Your task to perform on an android device: turn off sleep mode Image 0: 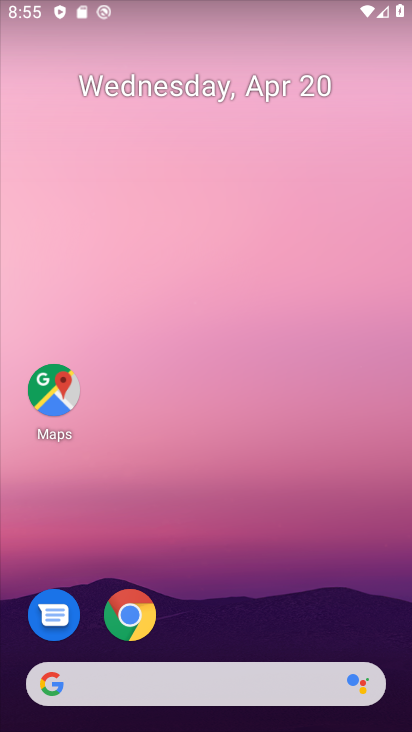
Step 0: drag from (297, 626) to (329, 106)
Your task to perform on an android device: turn off sleep mode Image 1: 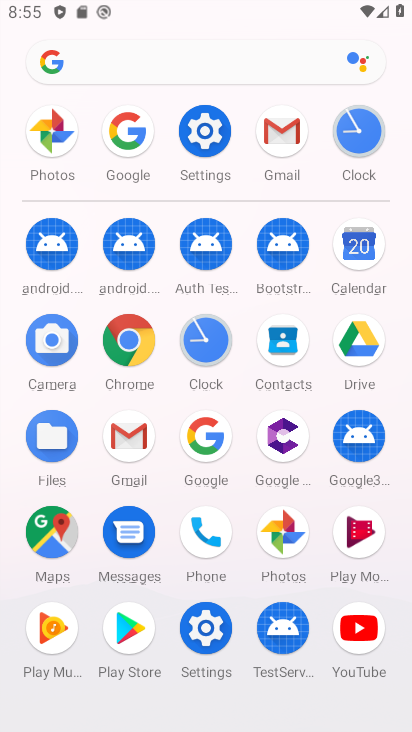
Step 1: click (204, 132)
Your task to perform on an android device: turn off sleep mode Image 2: 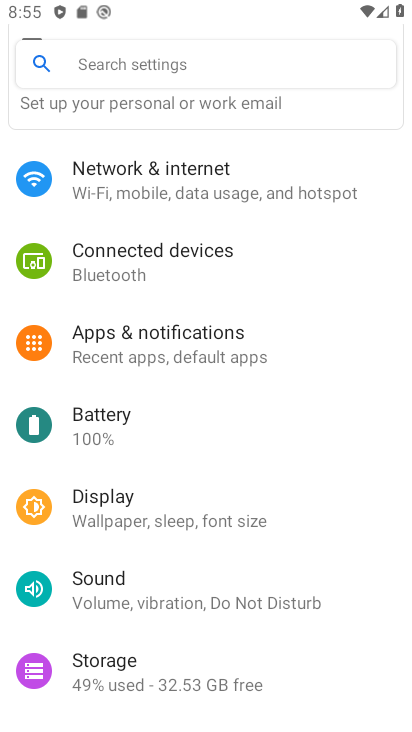
Step 2: click (213, 341)
Your task to perform on an android device: turn off sleep mode Image 3: 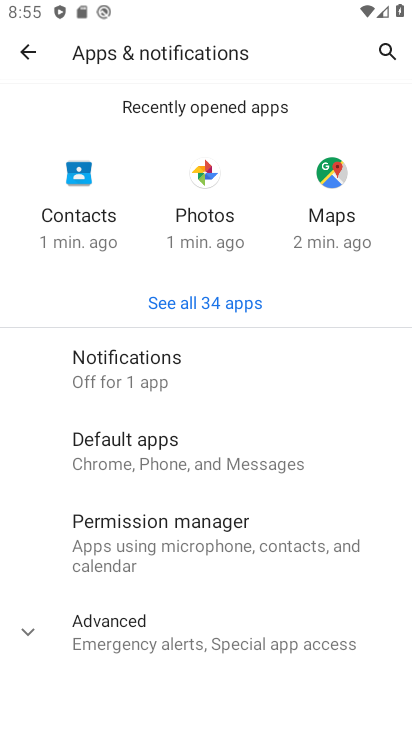
Step 3: press back button
Your task to perform on an android device: turn off sleep mode Image 4: 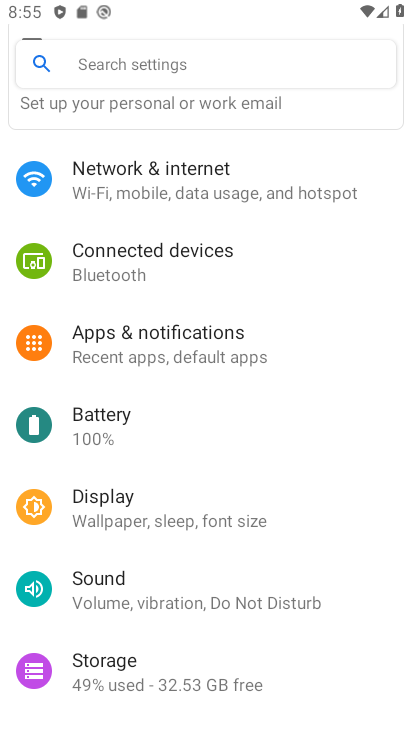
Step 4: click (253, 524)
Your task to perform on an android device: turn off sleep mode Image 5: 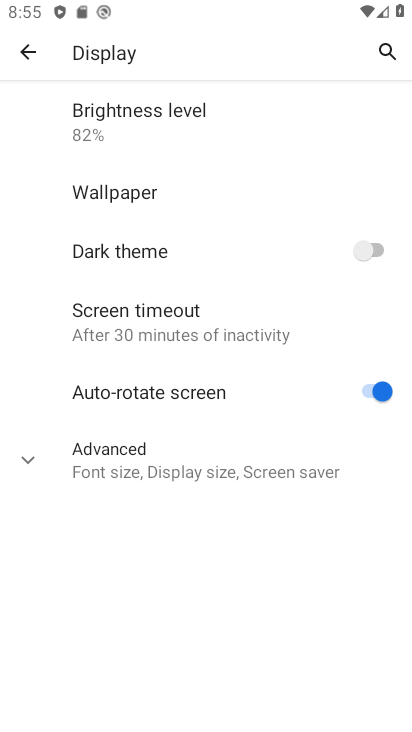
Step 5: click (165, 469)
Your task to perform on an android device: turn off sleep mode Image 6: 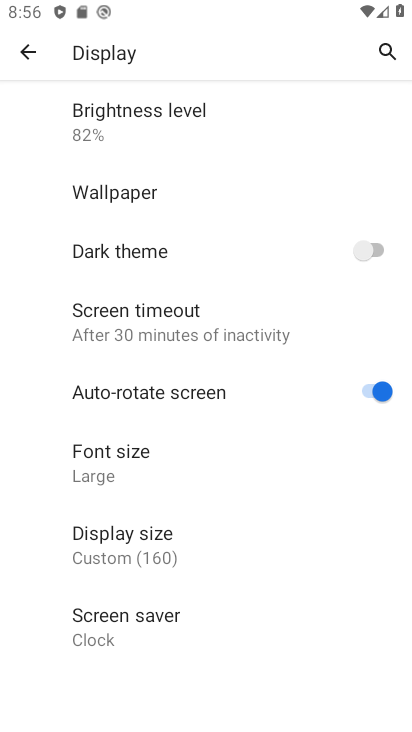
Step 6: task complete